Your task to perform on an android device: Open calendar and show me the second week of next month Image 0: 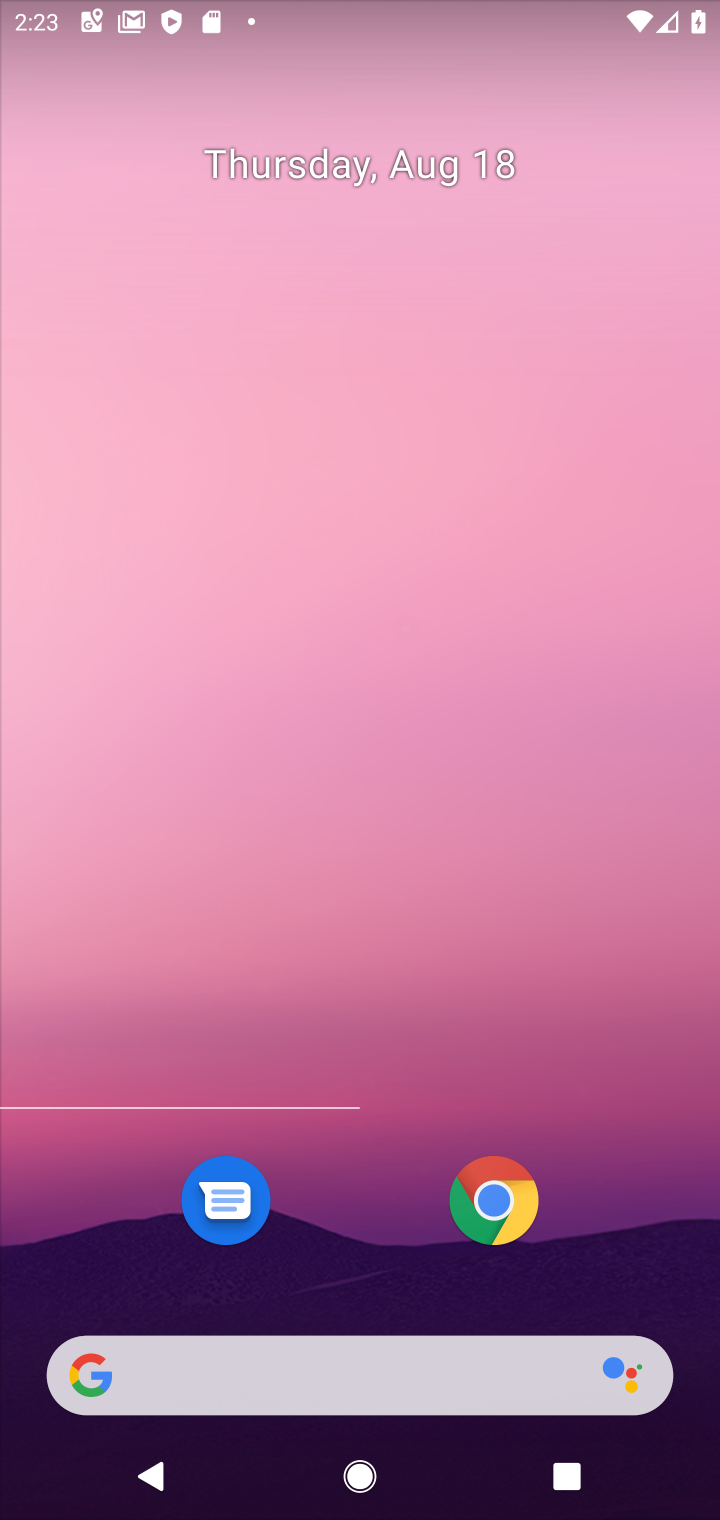
Step 0: press home button
Your task to perform on an android device: Open calendar and show me the second week of next month Image 1: 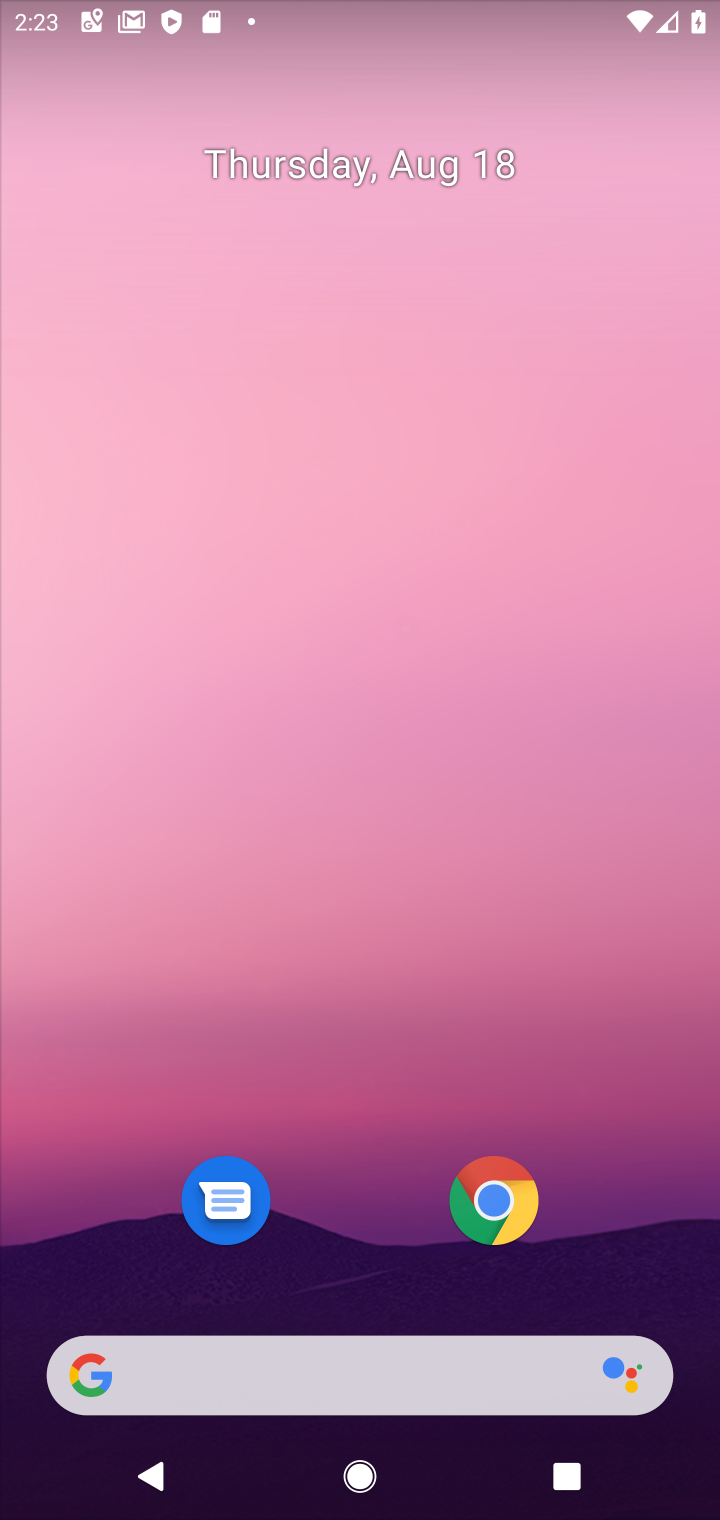
Step 1: drag from (386, 1131) to (428, 166)
Your task to perform on an android device: Open calendar and show me the second week of next month Image 2: 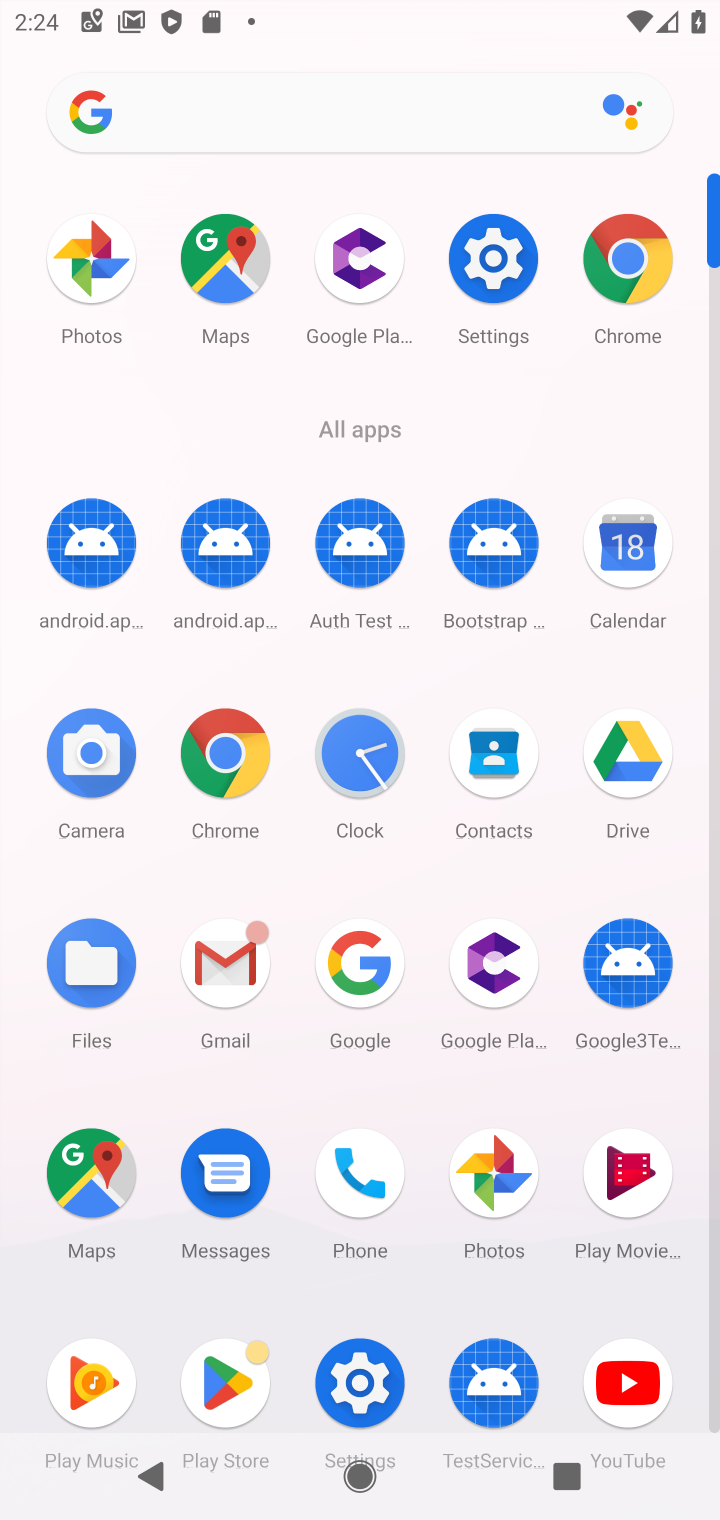
Step 2: click (605, 522)
Your task to perform on an android device: Open calendar and show me the second week of next month Image 3: 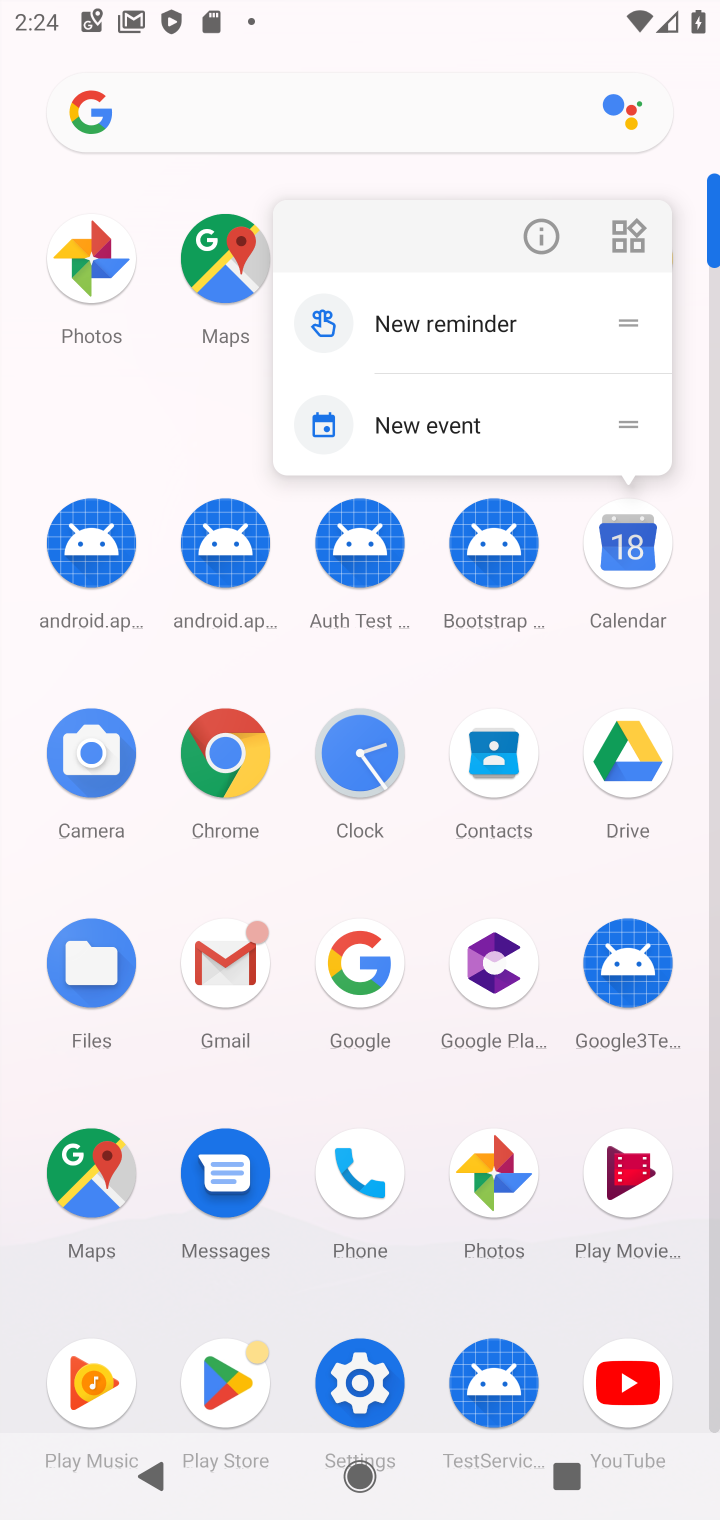
Step 3: click (639, 542)
Your task to perform on an android device: Open calendar and show me the second week of next month Image 4: 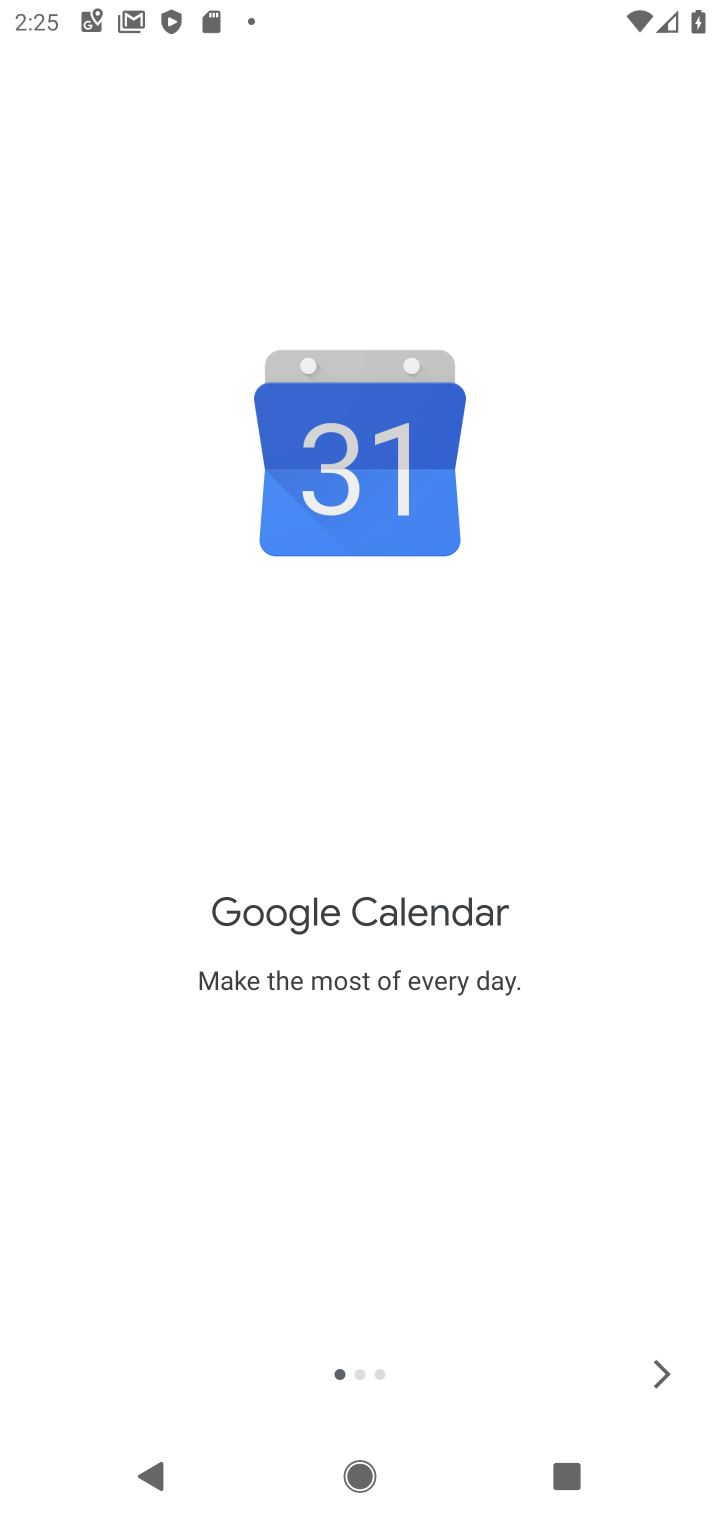
Step 4: click (641, 1375)
Your task to perform on an android device: Open calendar and show me the second week of next month Image 5: 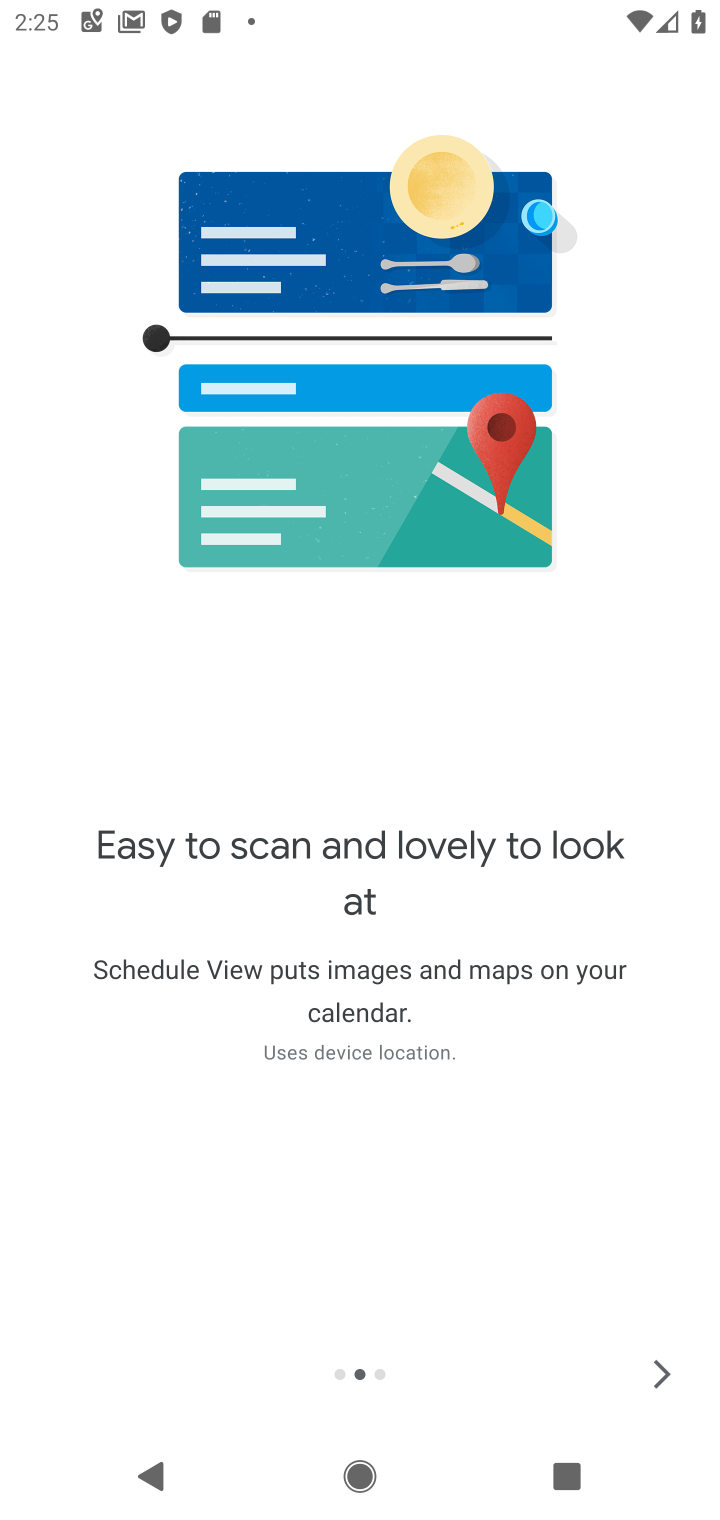
Step 5: click (641, 1375)
Your task to perform on an android device: Open calendar and show me the second week of next month Image 6: 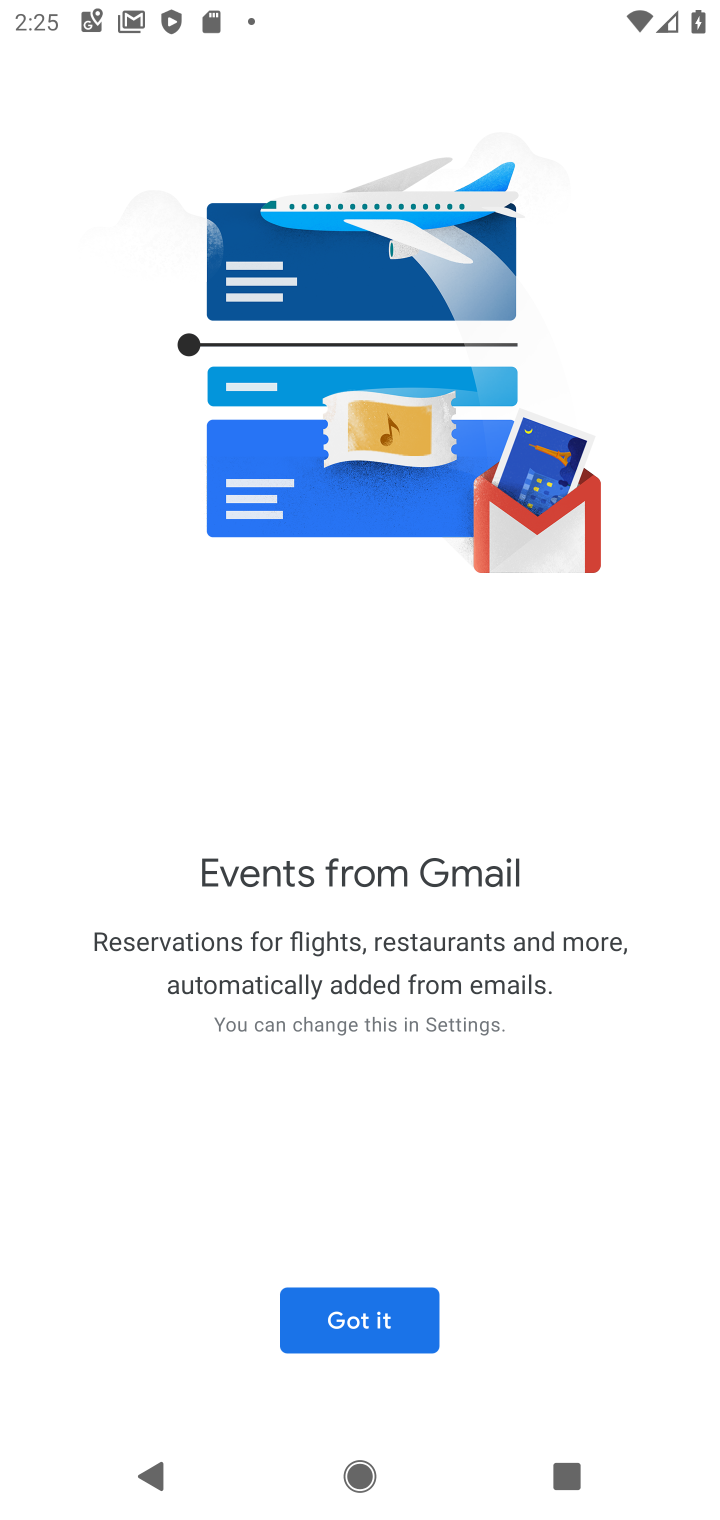
Step 6: click (403, 1316)
Your task to perform on an android device: Open calendar and show me the second week of next month Image 7: 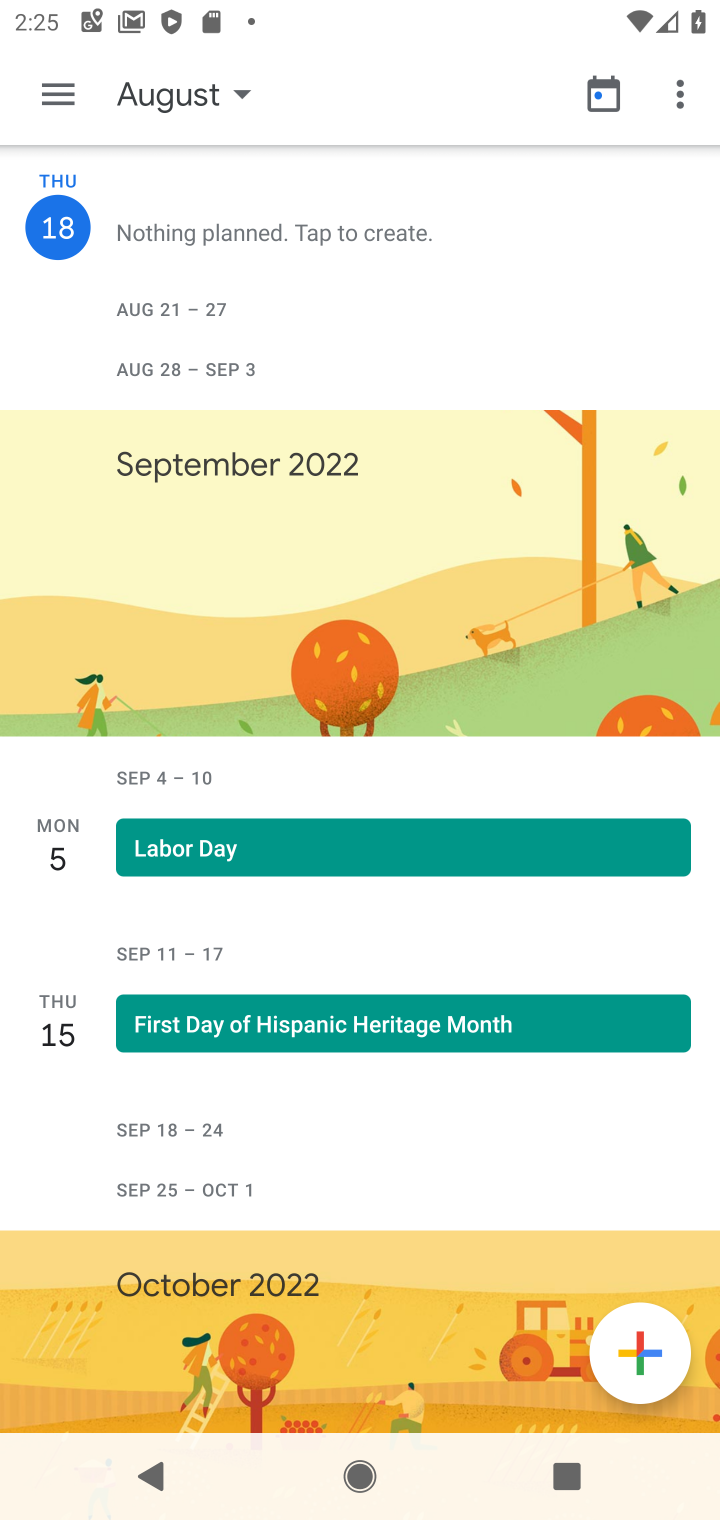
Step 7: click (217, 79)
Your task to perform on an android device: Open calendar and show me the second week of next month Image 8: 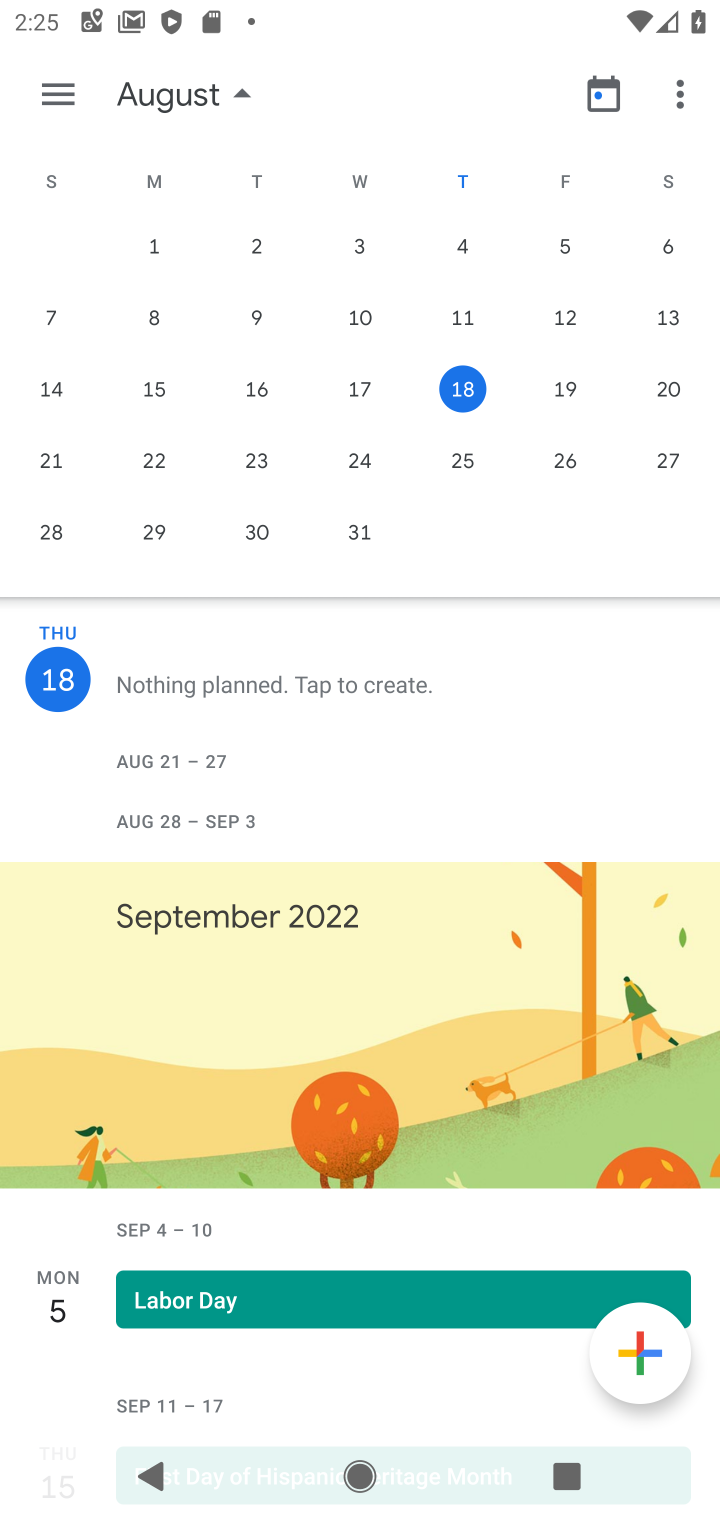
Step 8: drag from (442, 413) to (11, 393)
Your task to perform on an android device: Open calendar and show me the second week of next month Image 9: 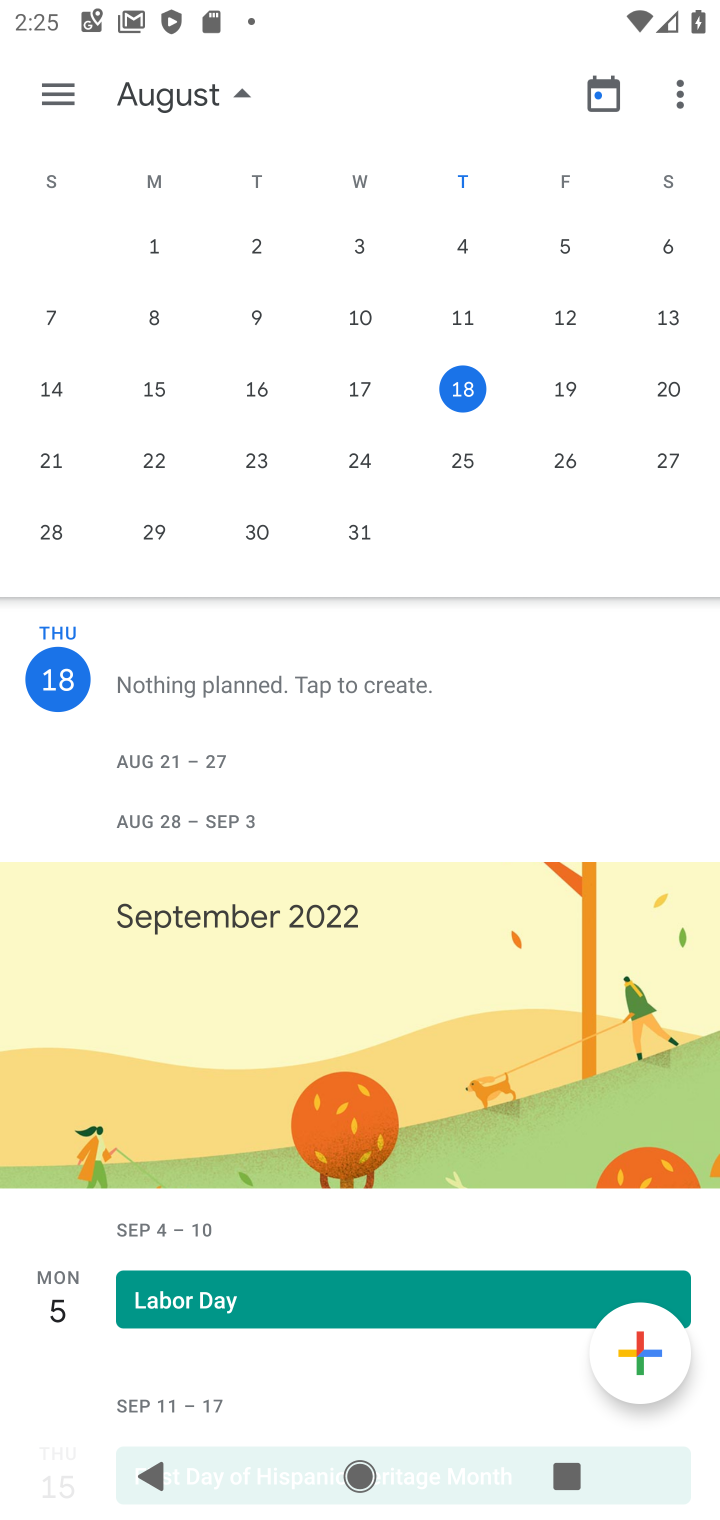
Step 9: click (569, 318)
Your task to perform on an android device: Open calendar and show me the second week of next month Image 10: 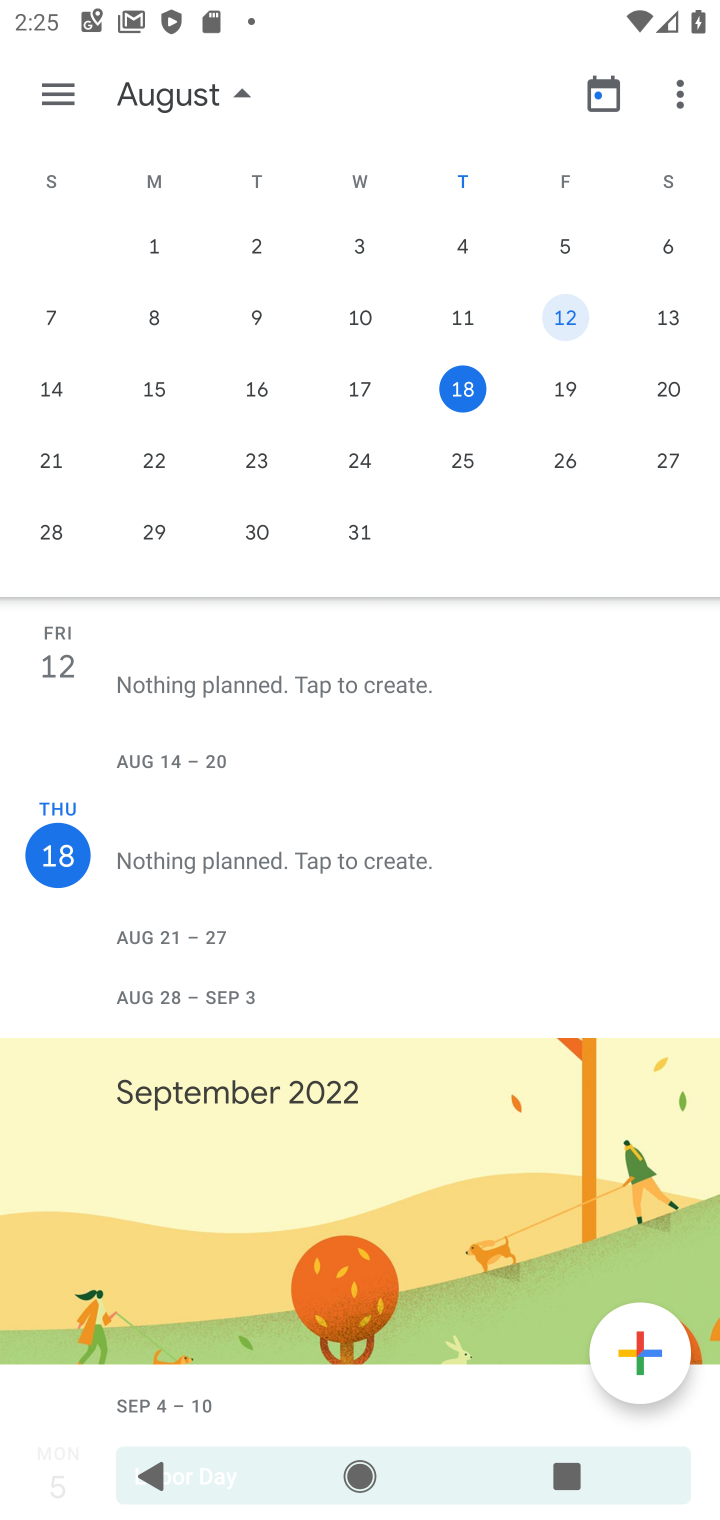
Step 10: task complete